Your task to perform on an android device: toggle airplane mode Image 0: 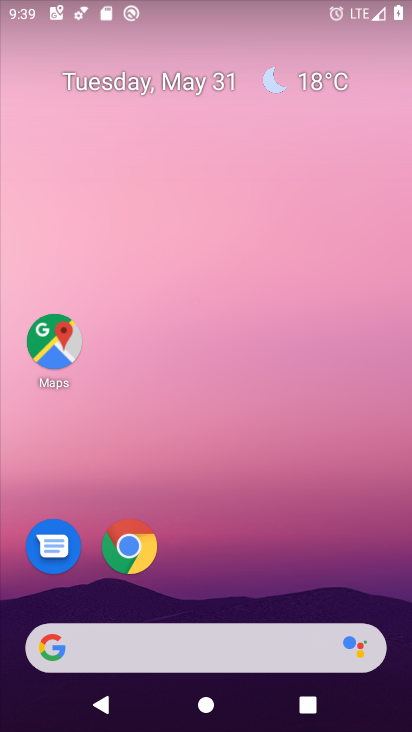
Step 0: drag from (232, 594) to (296, 37)
Your task to perform on an android device: toggle airplane mode Image 1: 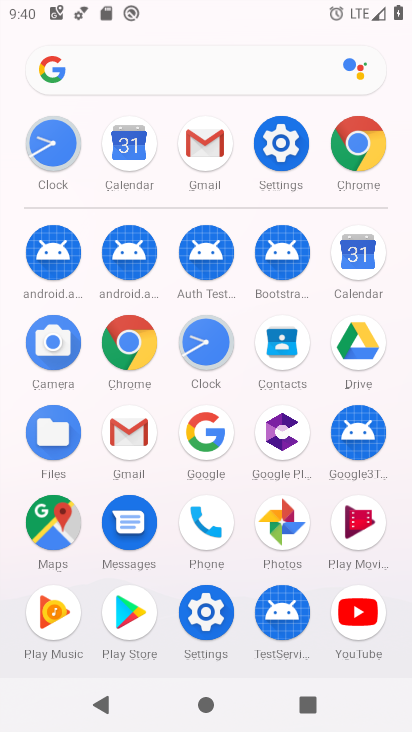
Step 1: click (284, 147)
Your task to perform on an android device: toggle airplane mode Image 2: 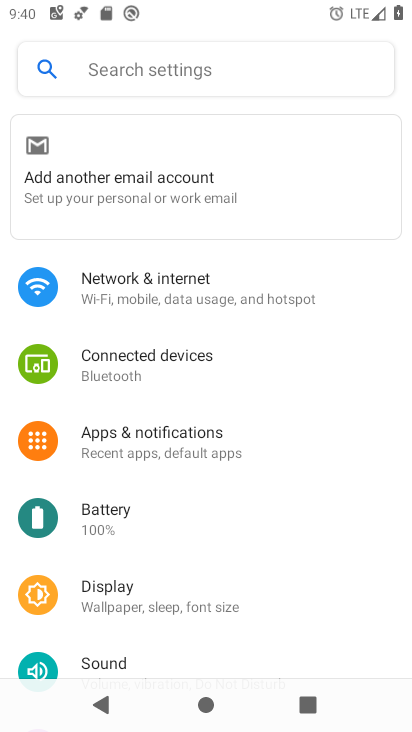
Step 2: click (144, 294)
Your task to perform on an android device: toggle airplane mode Image 3: 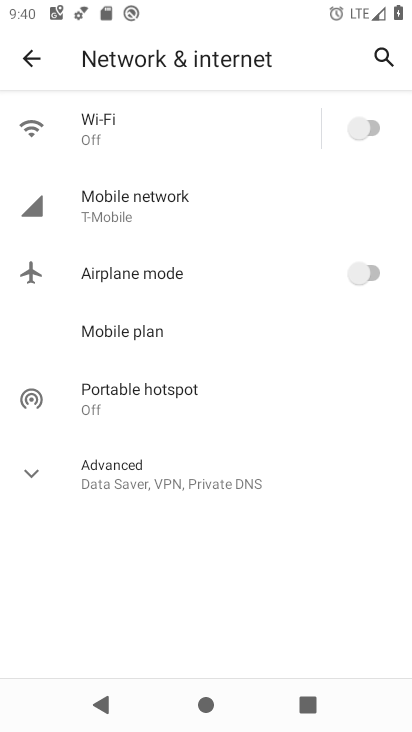
Step 3: click (375, 272)
Your task to perform on an android device: toggle airplane mode Image 4: 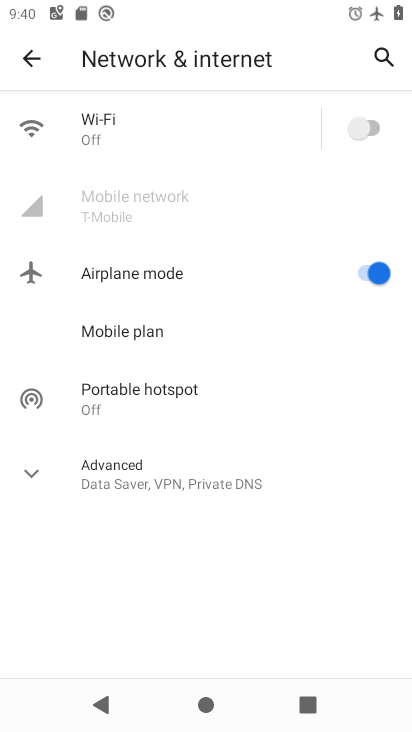
Step 4: task complete